Your task to perform on an android device: Do I have any events tomorrow? Image 0: 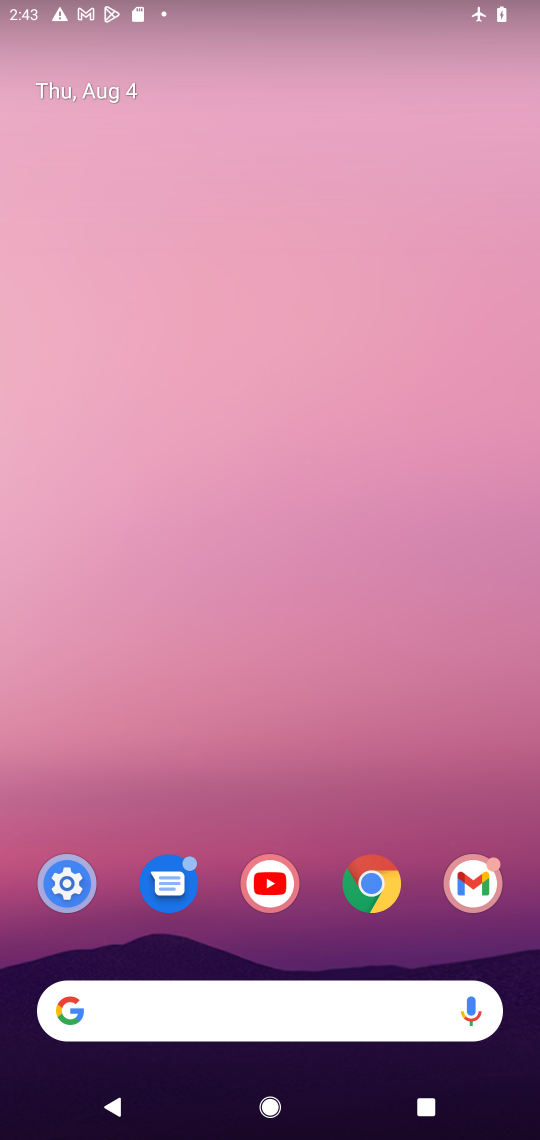
Step 0: drag from (245, 691) to (279, 21)
Your task to perform on an android device: Do I have any events tomorrow? Image 1: 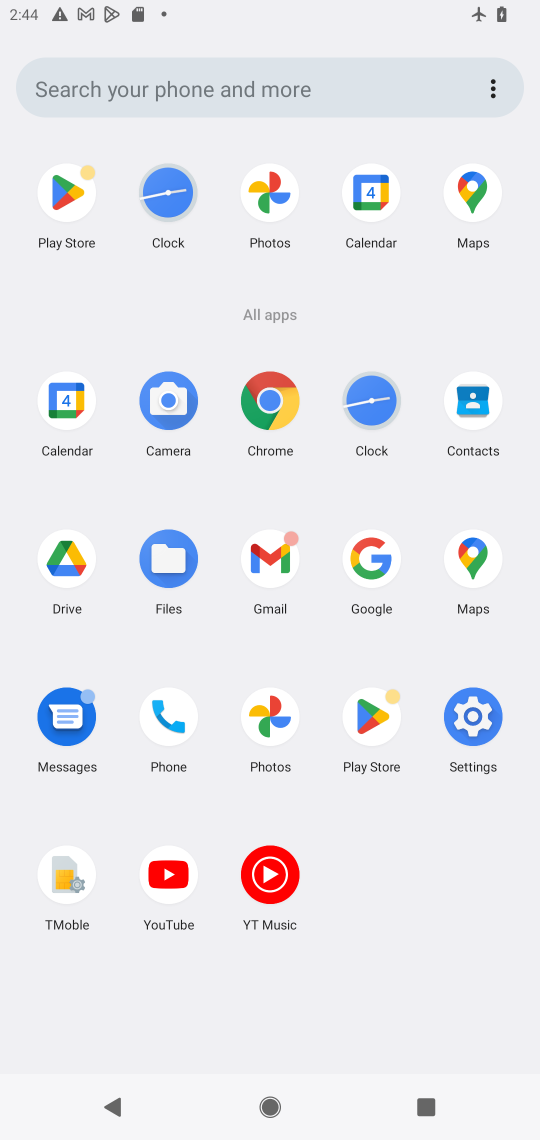
Step 1: click (370, 184)
Your task to perform on an android device: Do I have any events tomorrow? Image 2: 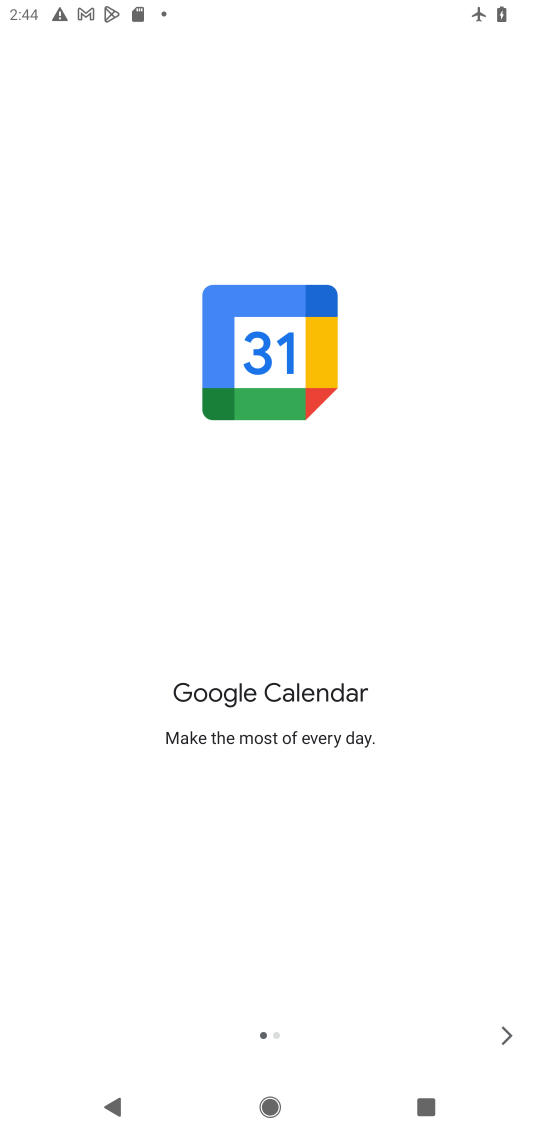
Step 2: click (502, 1037)
Your task to perform on an android device: Do I have any events tomorrow? Image 3: 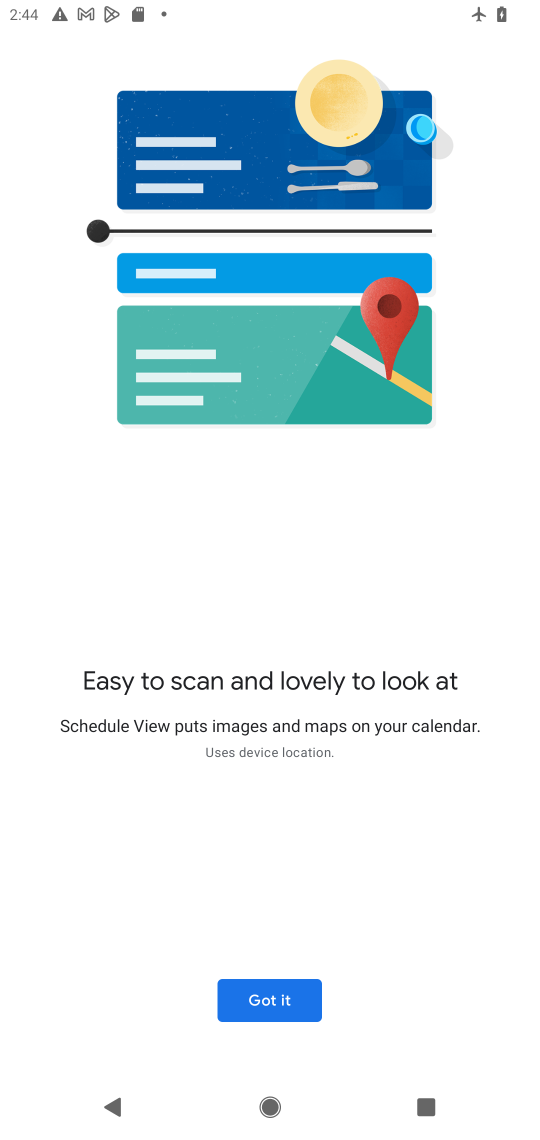
Step 3: click (257, 1007)
Your task to perform on an android device: Do I have any events tomorrow? Image 4: 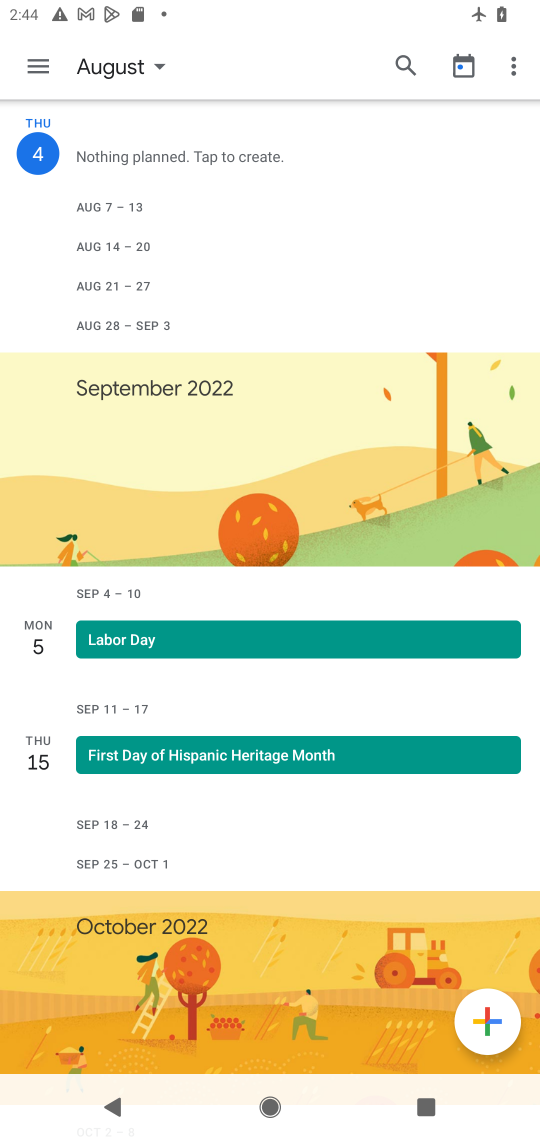
Step 4: click (157, 65)
Your task to perform on an android device: Do I have any events tomorrow? Image 5: 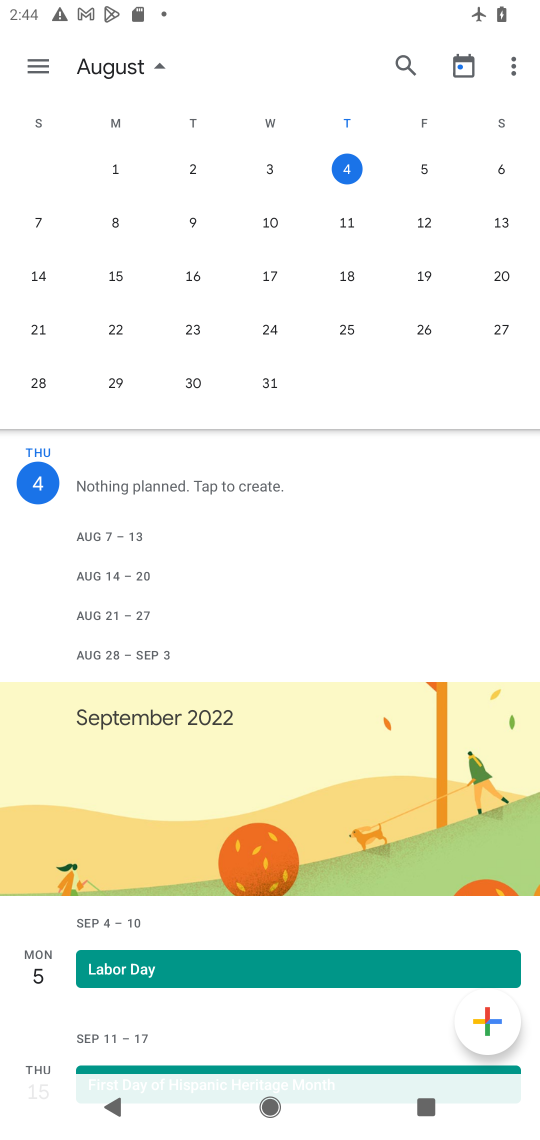
Step 5: click (423, 168)
Your task to perform on an android device: Do I have any events tomorrow? Image 6: 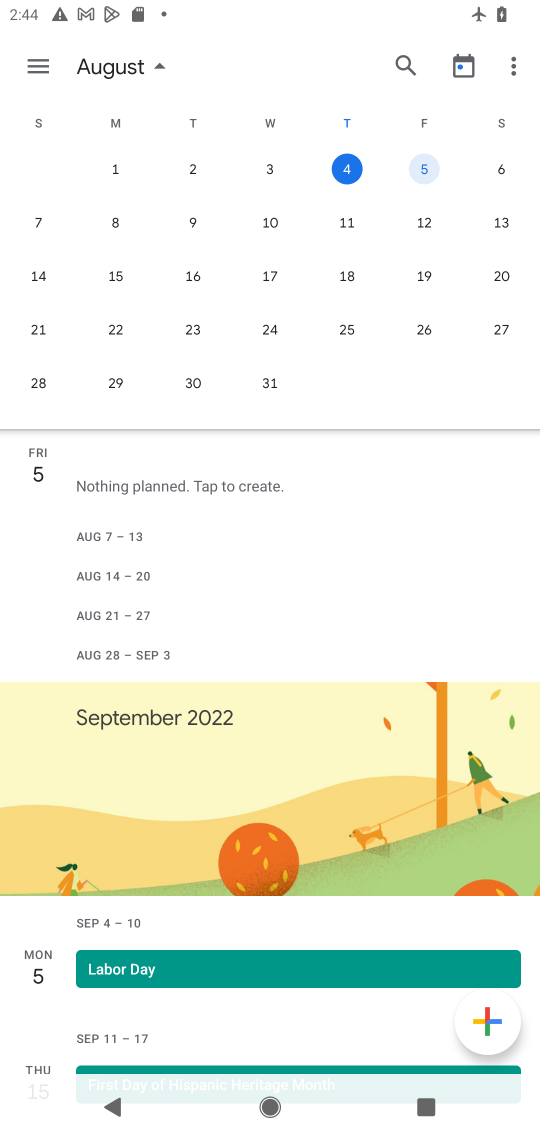
Step 6: click (423, 168)
Your task to perform on an android device: Do I have any events tomorrow? Image 7: 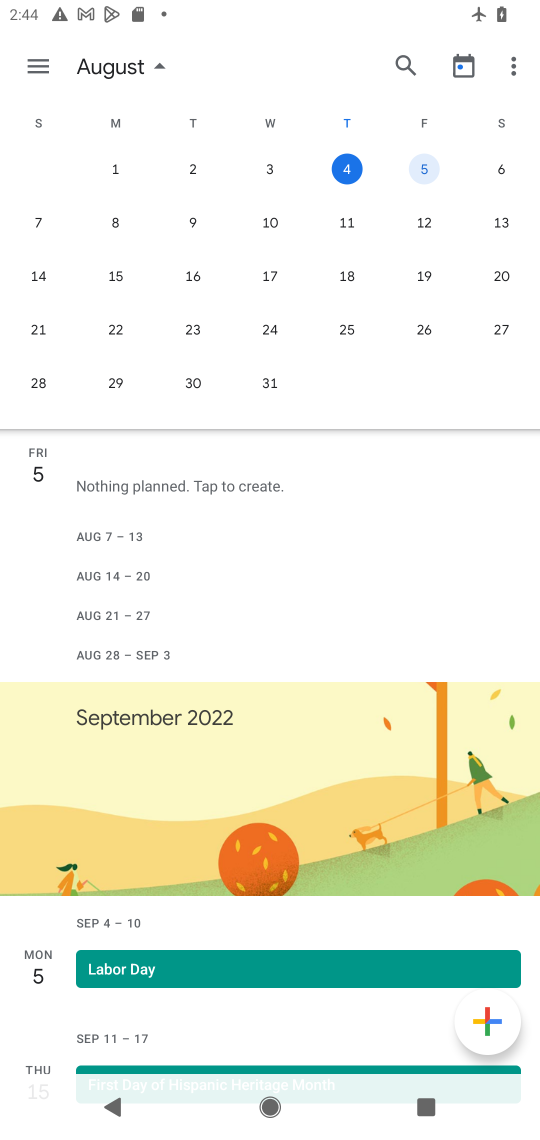
Step 7: click (423, 168)
Your task to perform on an android device: Do I have any events tomorrow? Image 8: 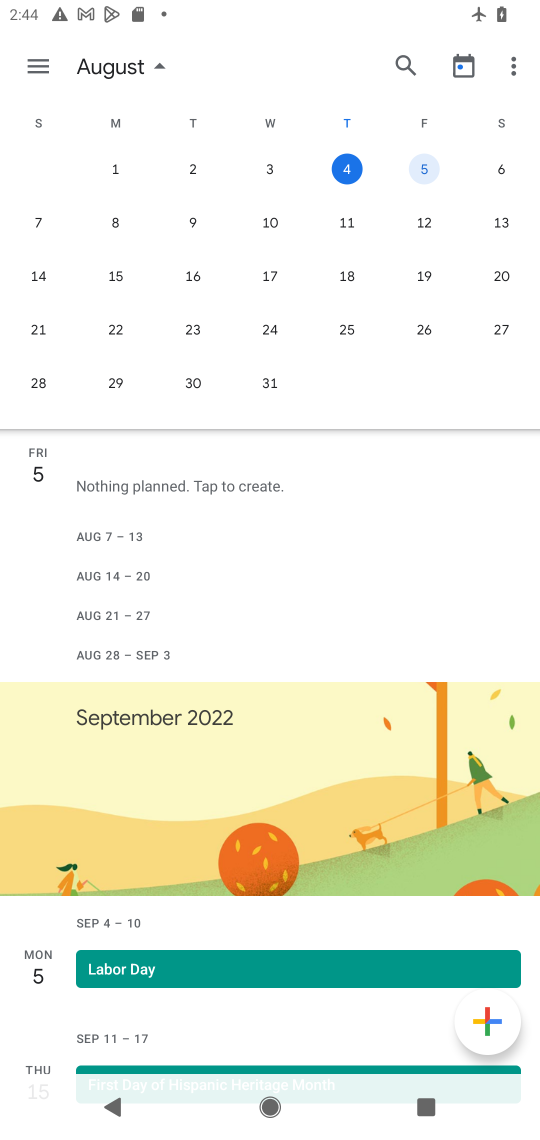
Step 8: click (423, 168)
Your task to perform on an android device: Do I have any events tomorrow? Image 9: 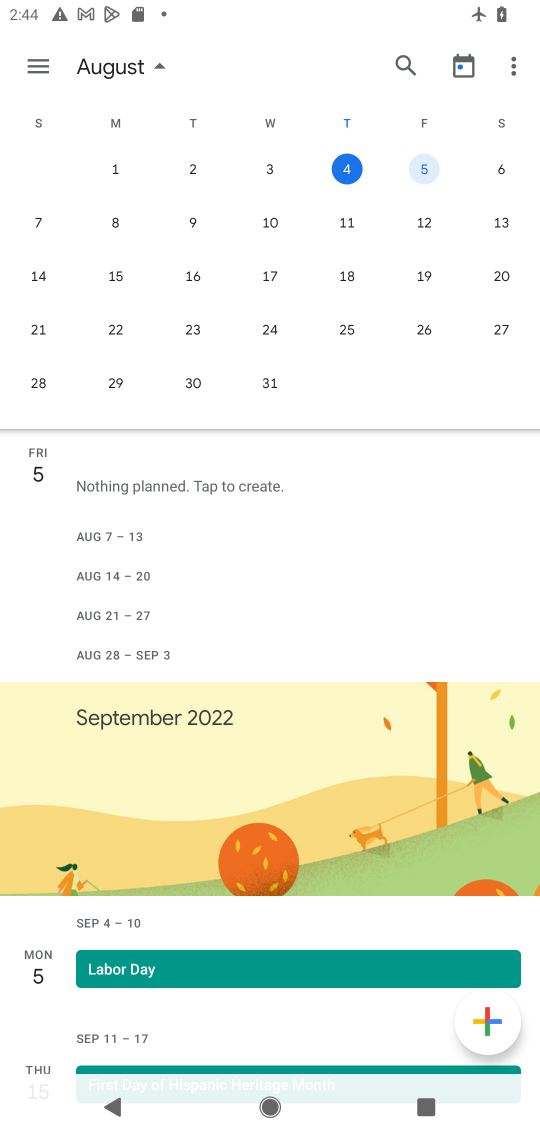
Step 9: click (423, 168)
Your task to perform on an android device: Do I have any events tomorrow? Image 10: 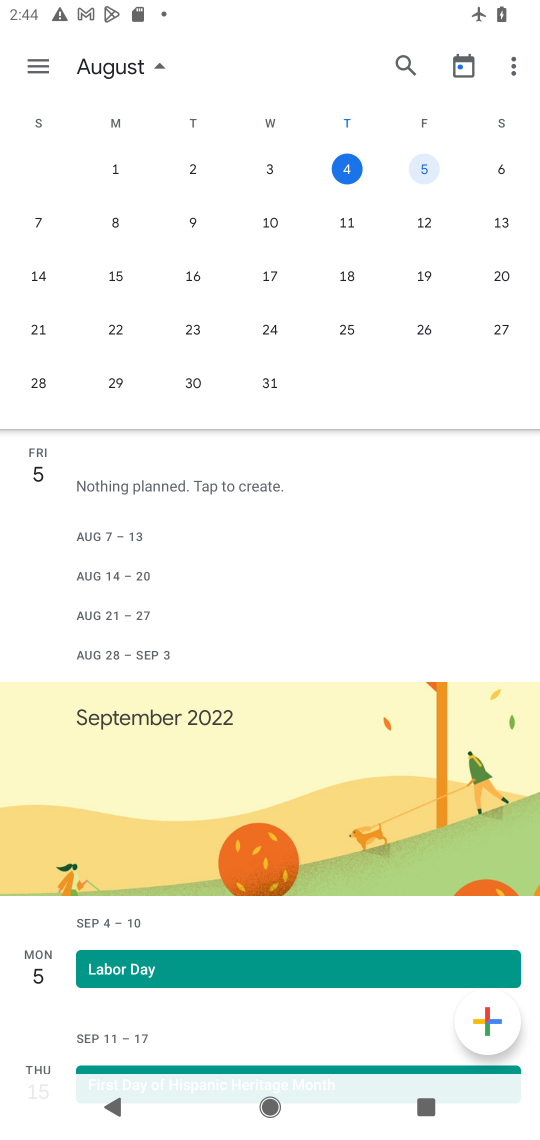
Step 10: click (423, 168)
Your task to perform on an android device: Do I have any events tomorrow? Image 11: 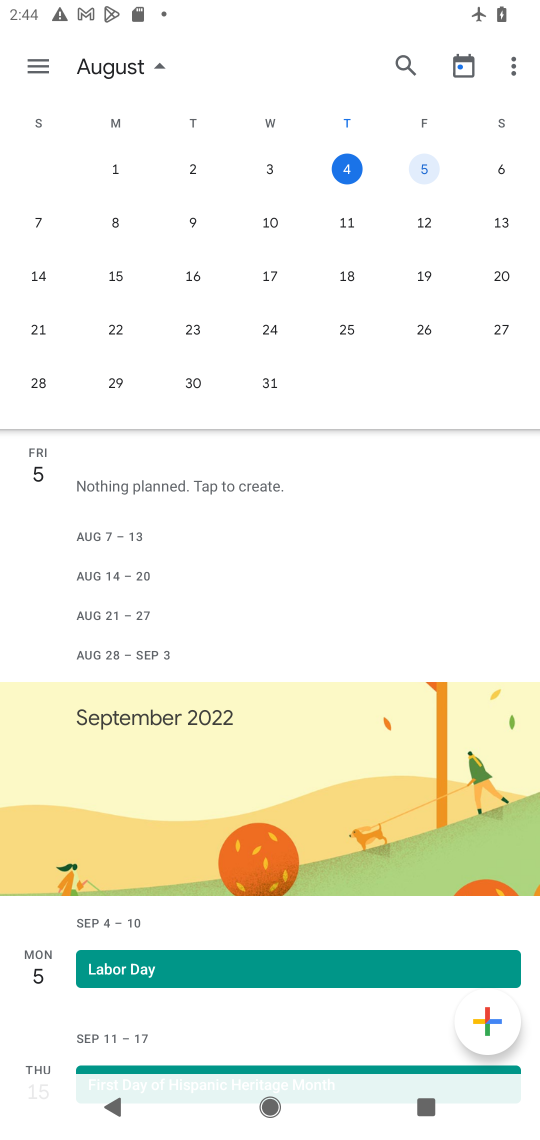
Step 11: click (423, 168)
Your task to perform on an android device: Do I have any events tomorrow? Image 12: 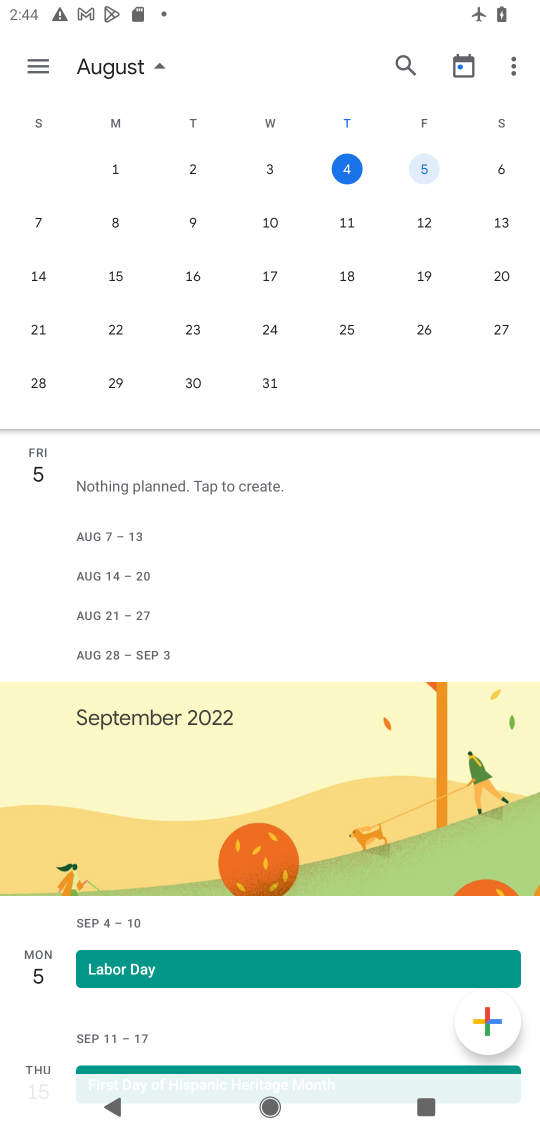
Step 12: click (423, 168)
Your task to perform on an android device: Do I have any events tomorrow? Image 13: 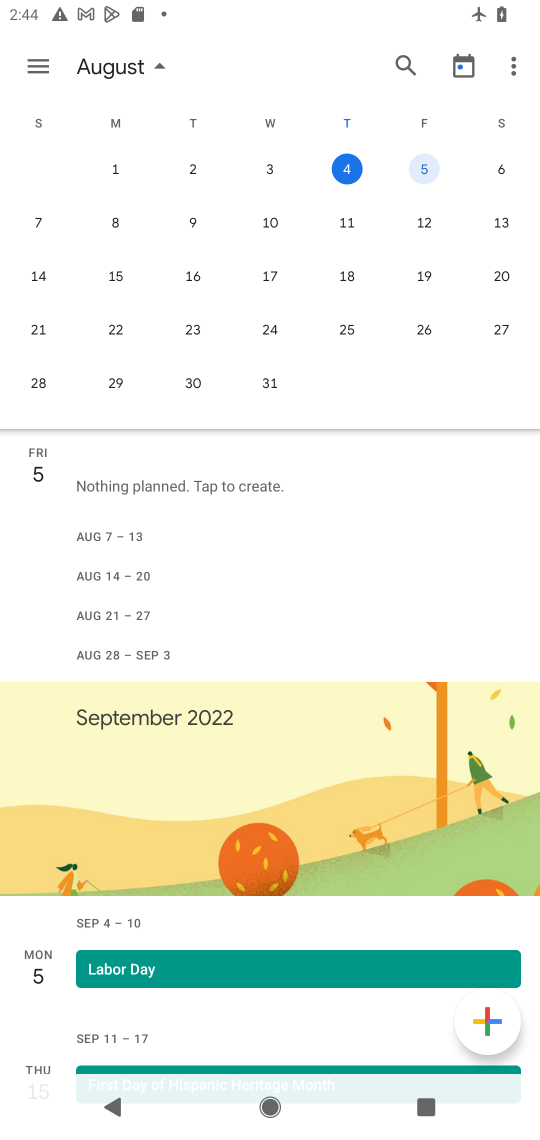
Step 13: click (423, 168)
Your task to perform on an android device: Do I have any events tomorrow? Image 14: 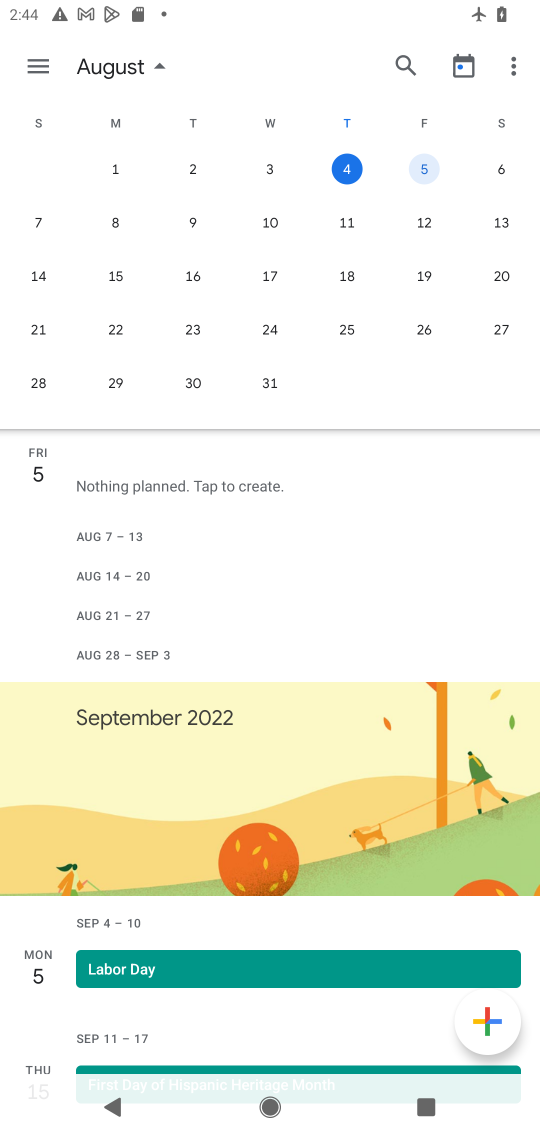
Step 14: click (423, 168)
Your task to perform on an android device: Do I have any events tomorrow? Image 15: 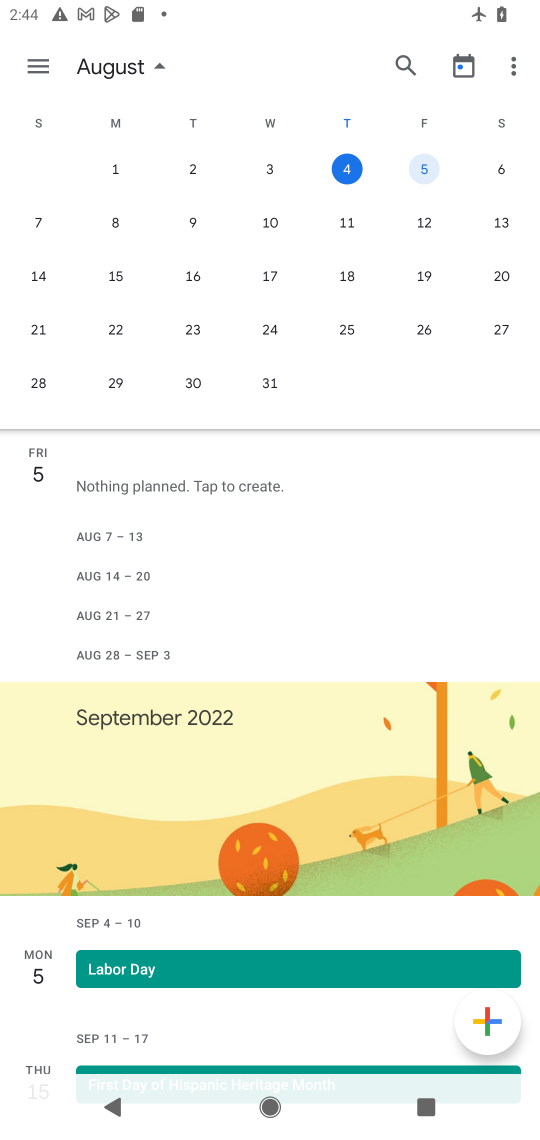
Step 15: click (423, 168)
Your task to perform on an android device: Do I have any events tomorrow? Image 16: 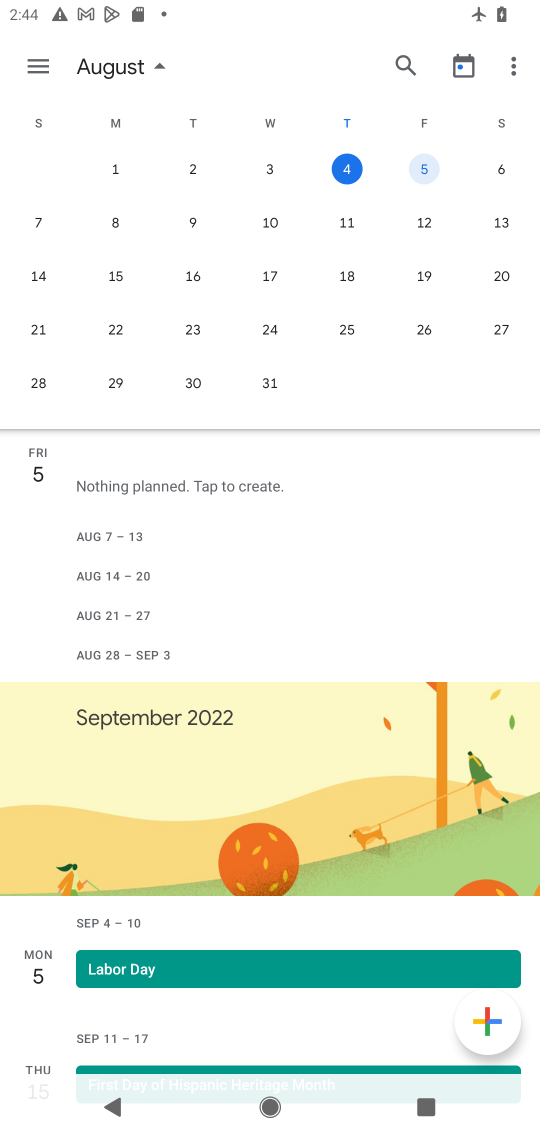
Step 16: click (423, 168)
Your task to perform on an android device: Do I have any events tomorrow? Image 17: 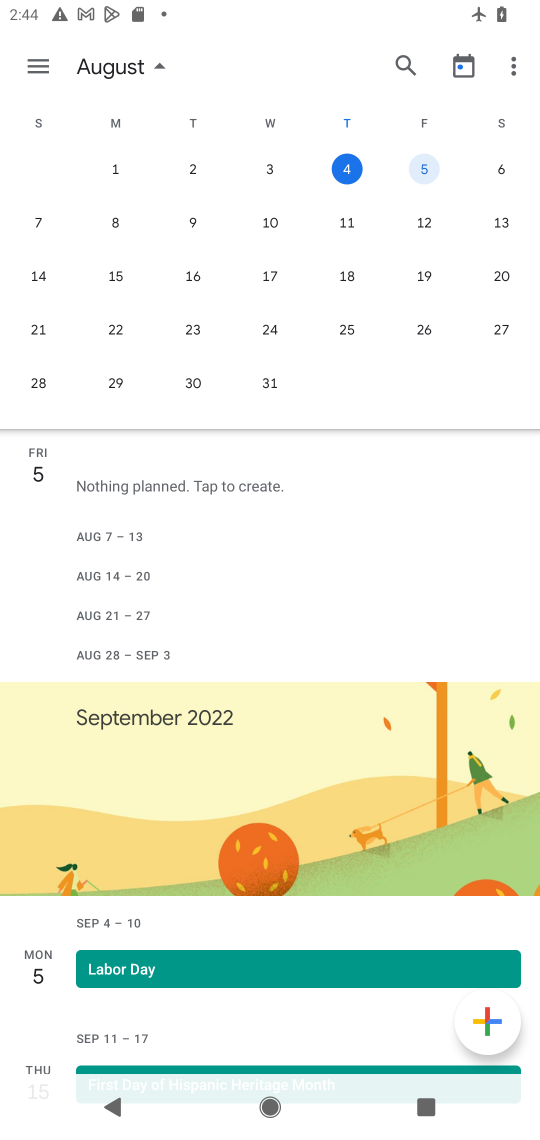
Step 17: click (423, 168)
Your task to perform on an android device: Do I have any events tomorrow? Image 18: 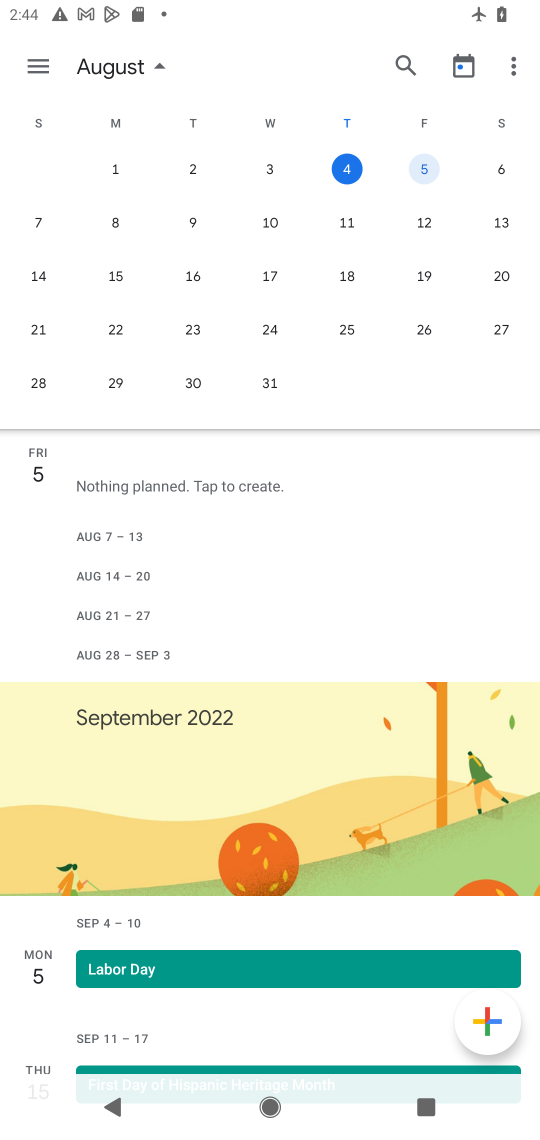
Step 18: click (423, 168)
Your task to perform on an android device: Do I have any events tomorrow? Image 19: 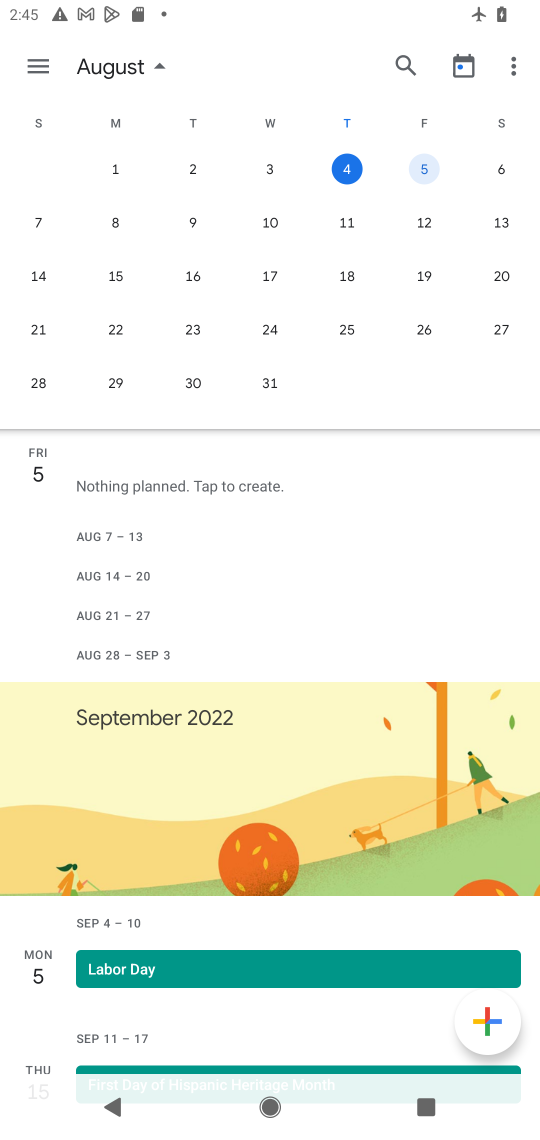
Step 19: task complete